Your task to perform on an android device: What's the weather going to be tomorrow? Image 0: 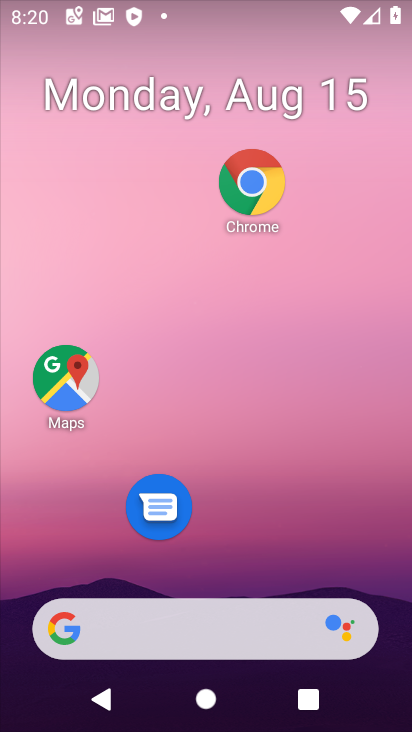
Step 0: drag from (259, 598) to (249, 236)
Your task to perform on an android device: What's the weather going to be tomorrow? Image 1: 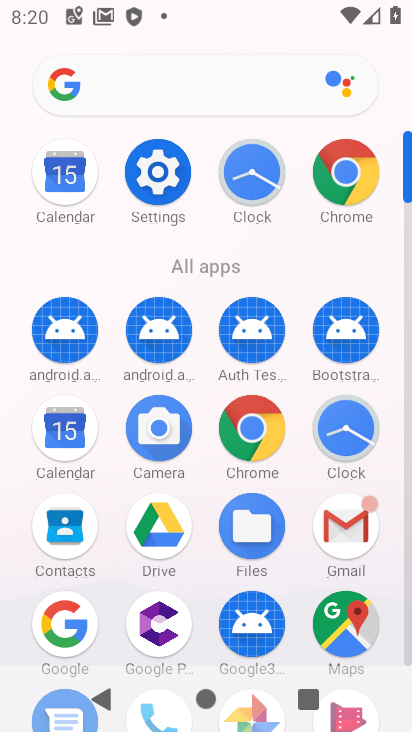
Step 1: press home button
Your task to perform on an android device: What's the weather going to be tomorrow? Image 2: 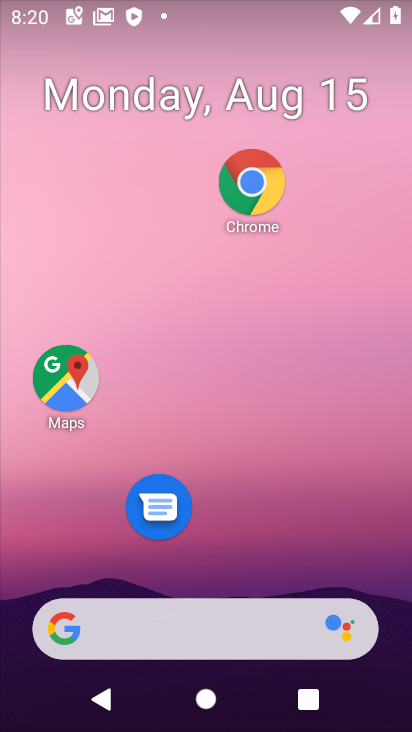
Step 2: click (185, 623)
Your task to perform on an android device: What's the weather going to be tomorrow? Image 3: 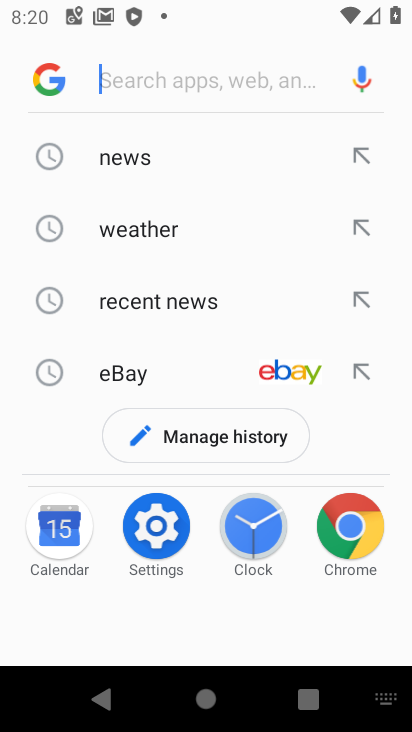
Step 3: click (109, 214)
Your task to perform on an android device: What's the weather going to be tomorrow? Image 4: 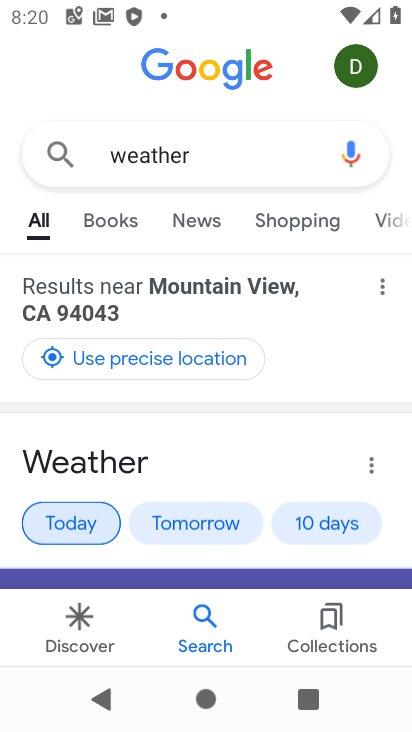
Step 4: task complete